Your task to perform on an android device: change notifications settings Image 0: 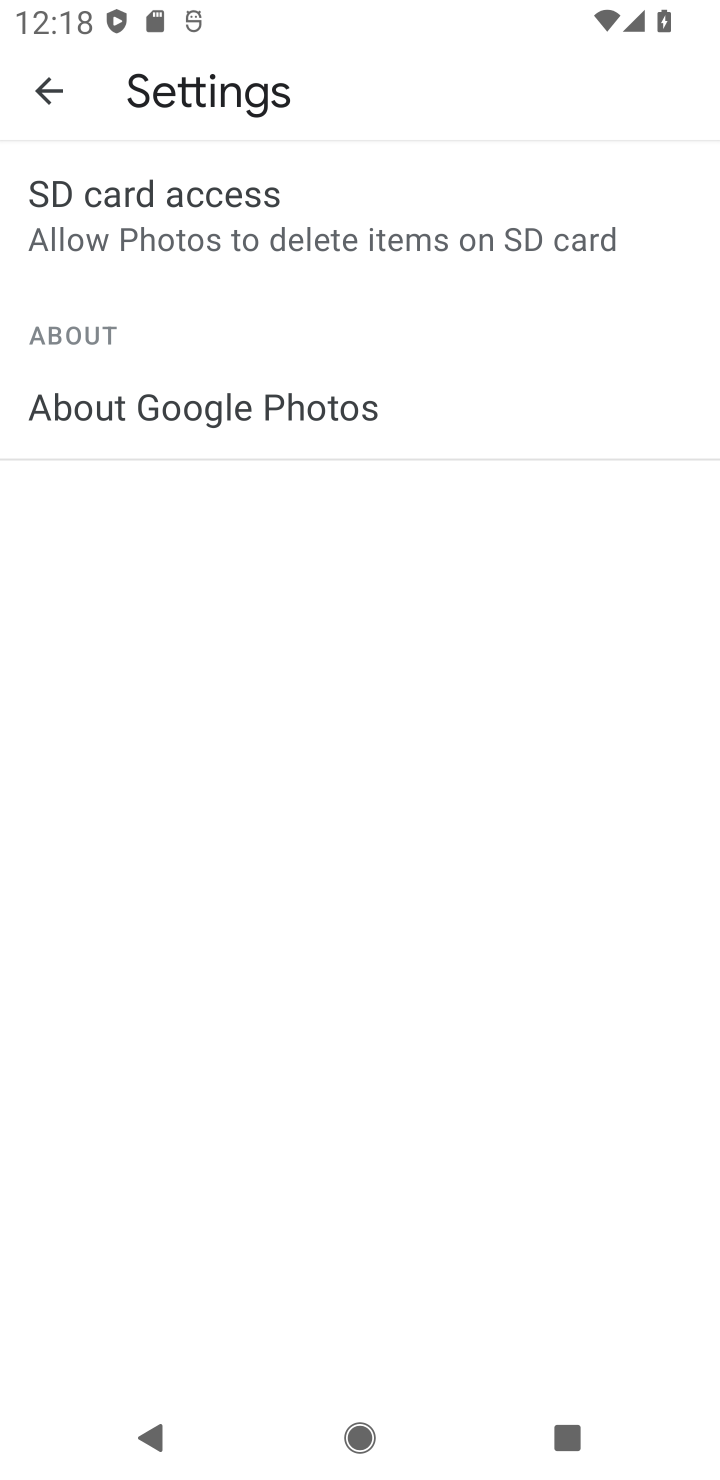
Step 0: press home button
Your task to perform on an android device: change notifications settings Image 1: 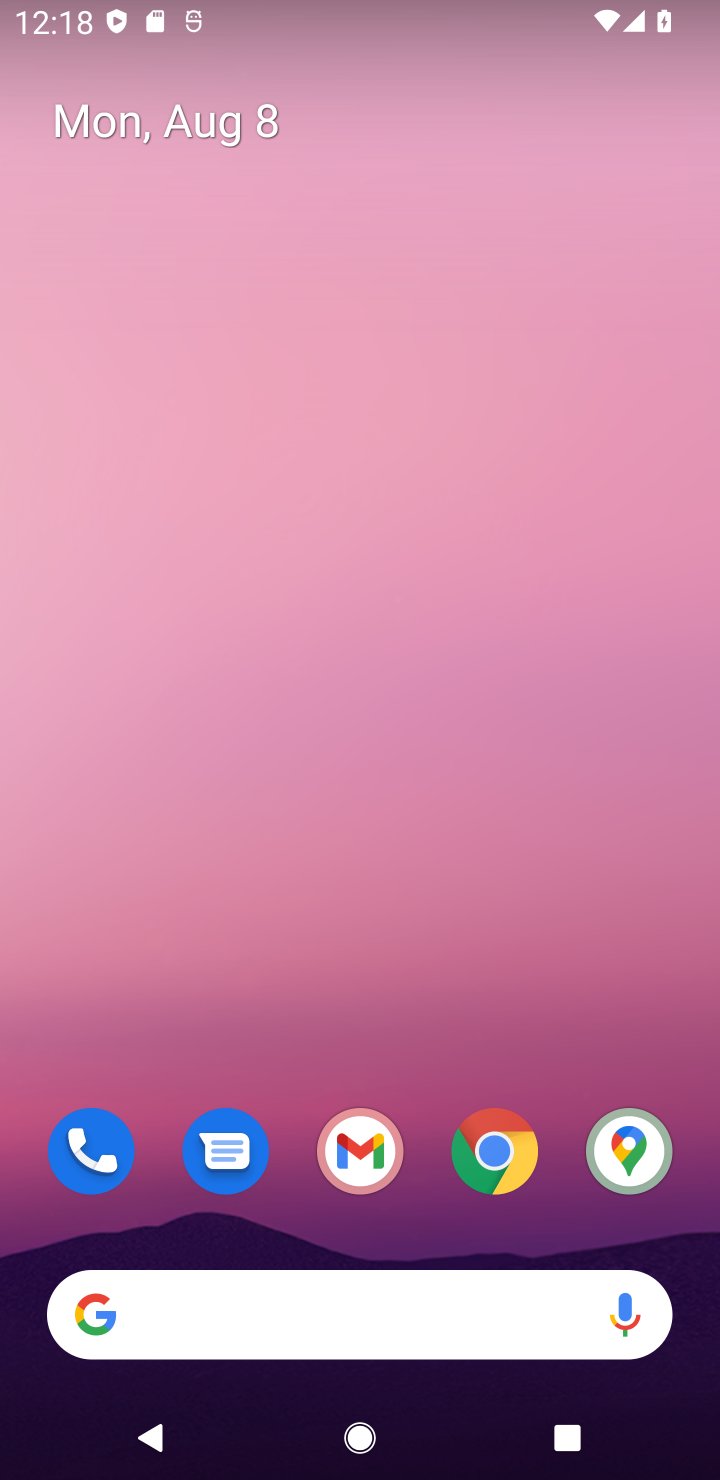
Step 1: drag from (307, 803) to (273, 264)
Your task to perform on an android device: change notifications settings Image 2: 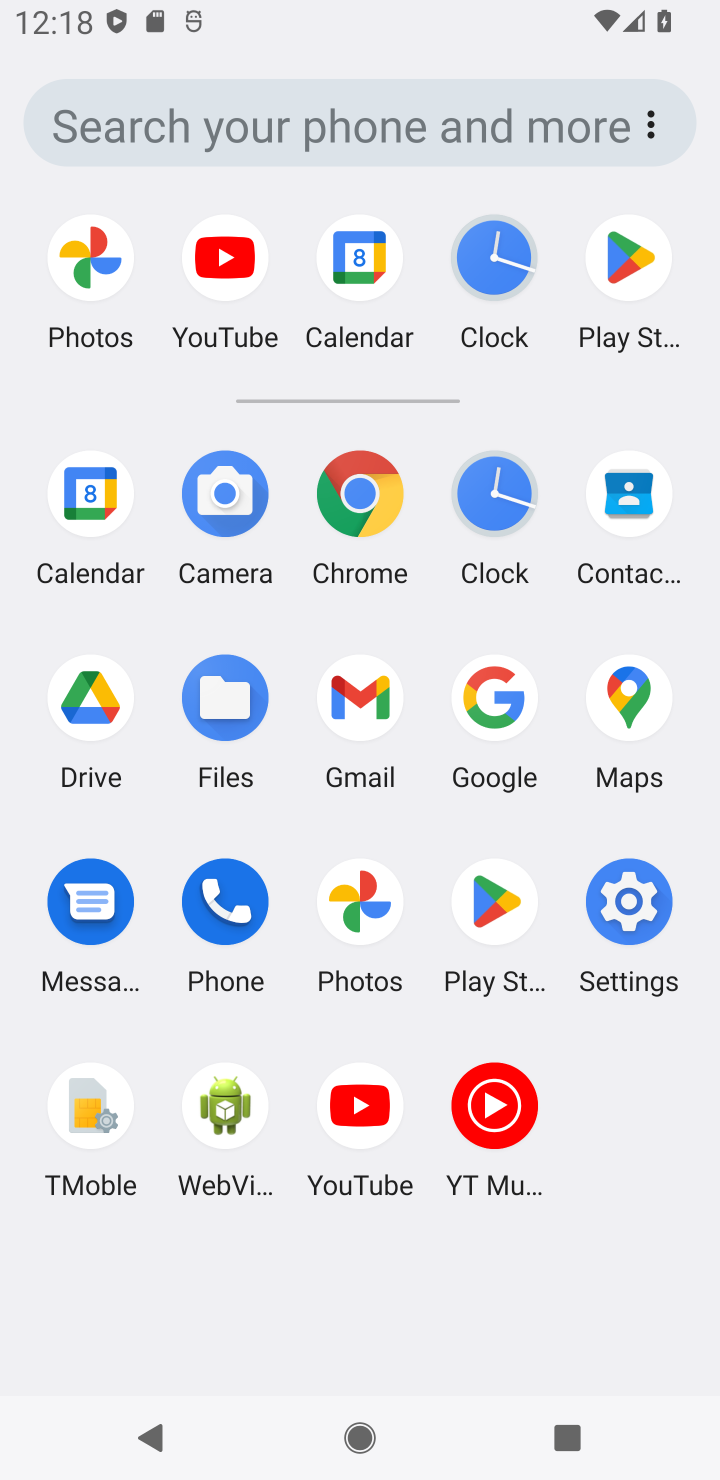
Step 2: click (631, 898)
Your task to perform on an android device: change notifications settings Image 3: 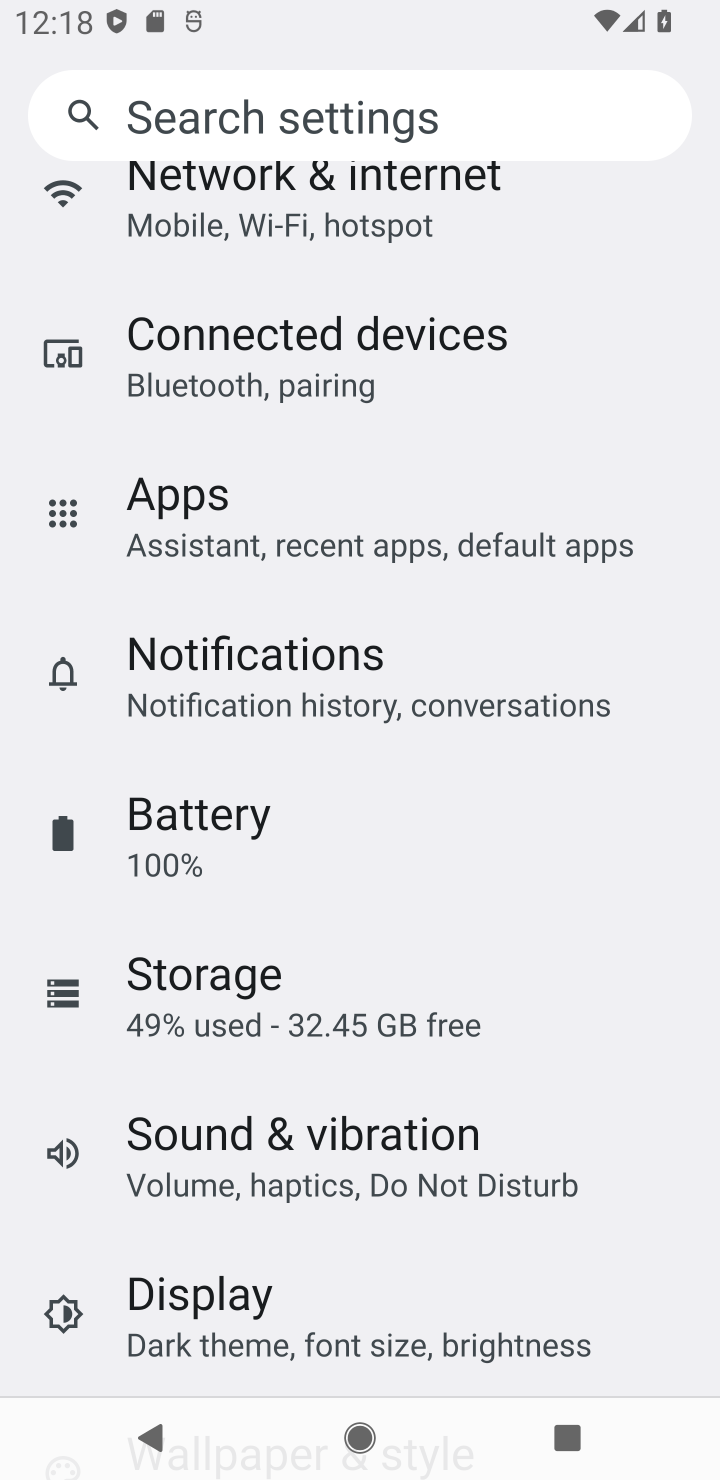
Step 3: click (292, 672)
Your task to perform on an android device: change notifications settings Image 4: 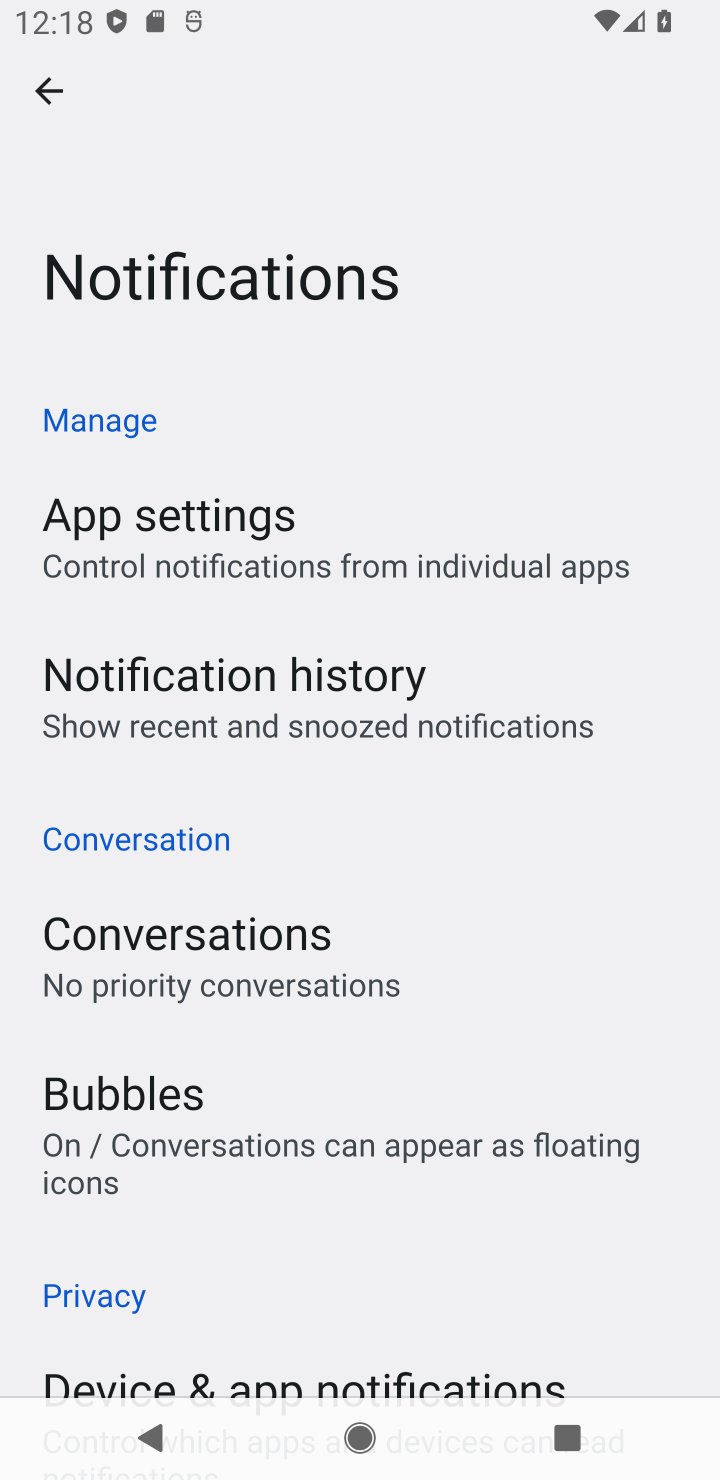
Step 4: click (249, 509)
Your task to perform on an android device: change notifications settings Image 5: 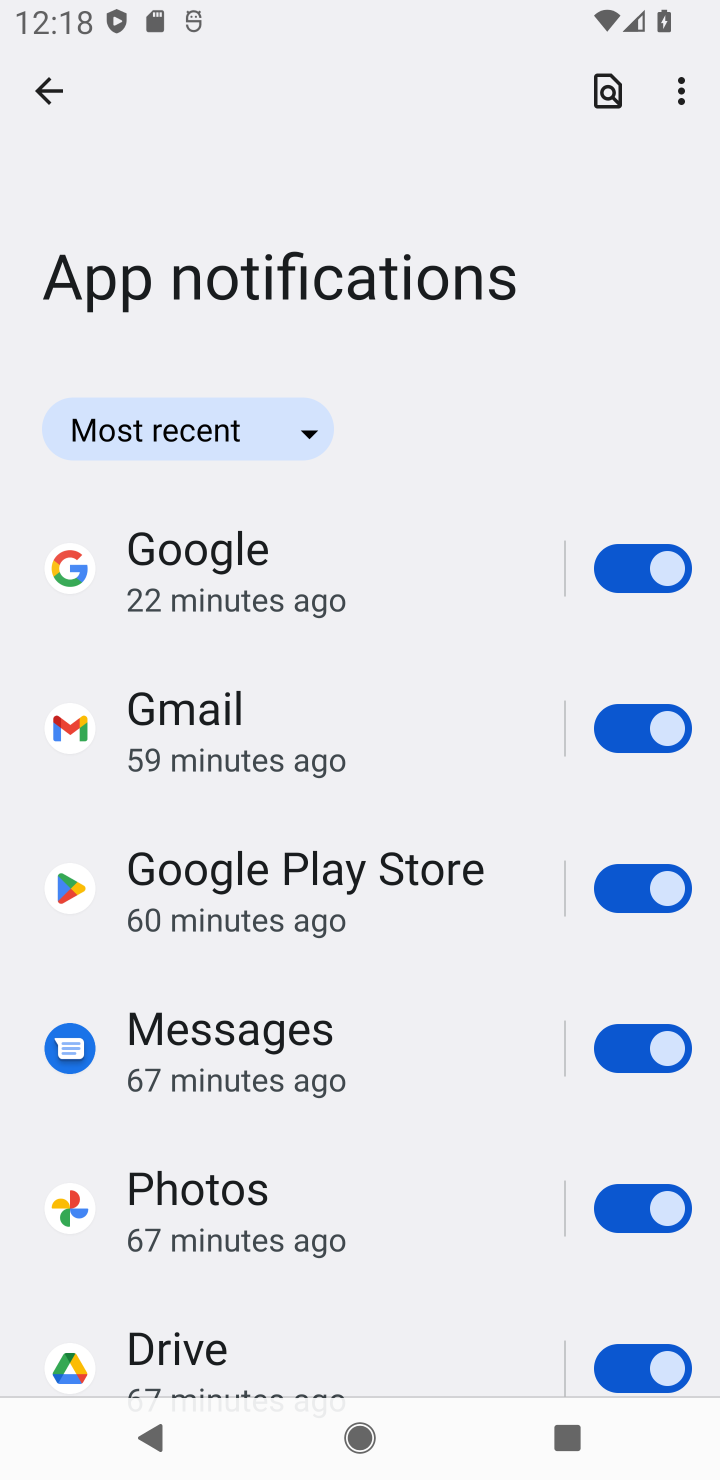
Step 5: click (626, 552)
Your task to perform on an android device: change notifications settings Image 6: 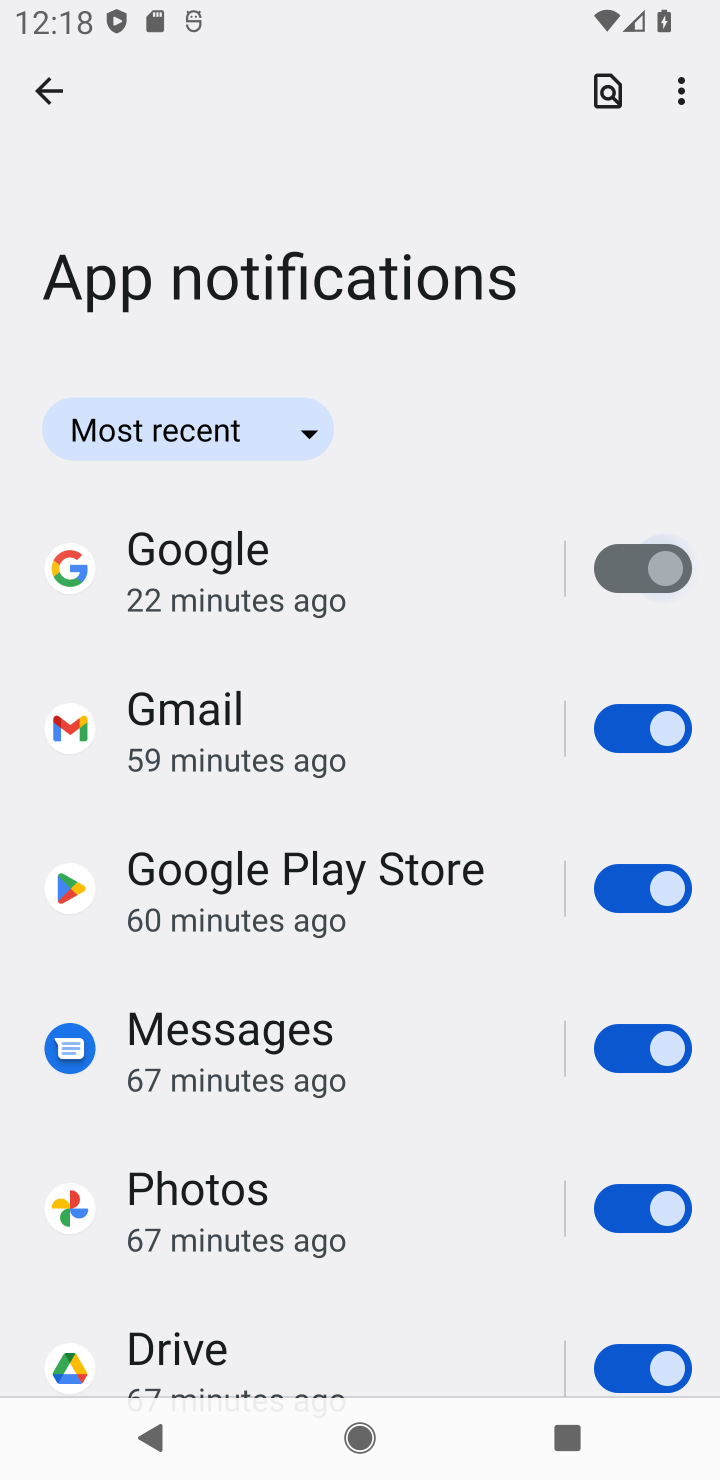
Step 6: click (619, 710)
Your task to perform on an android device: change notifications settings Image 7: 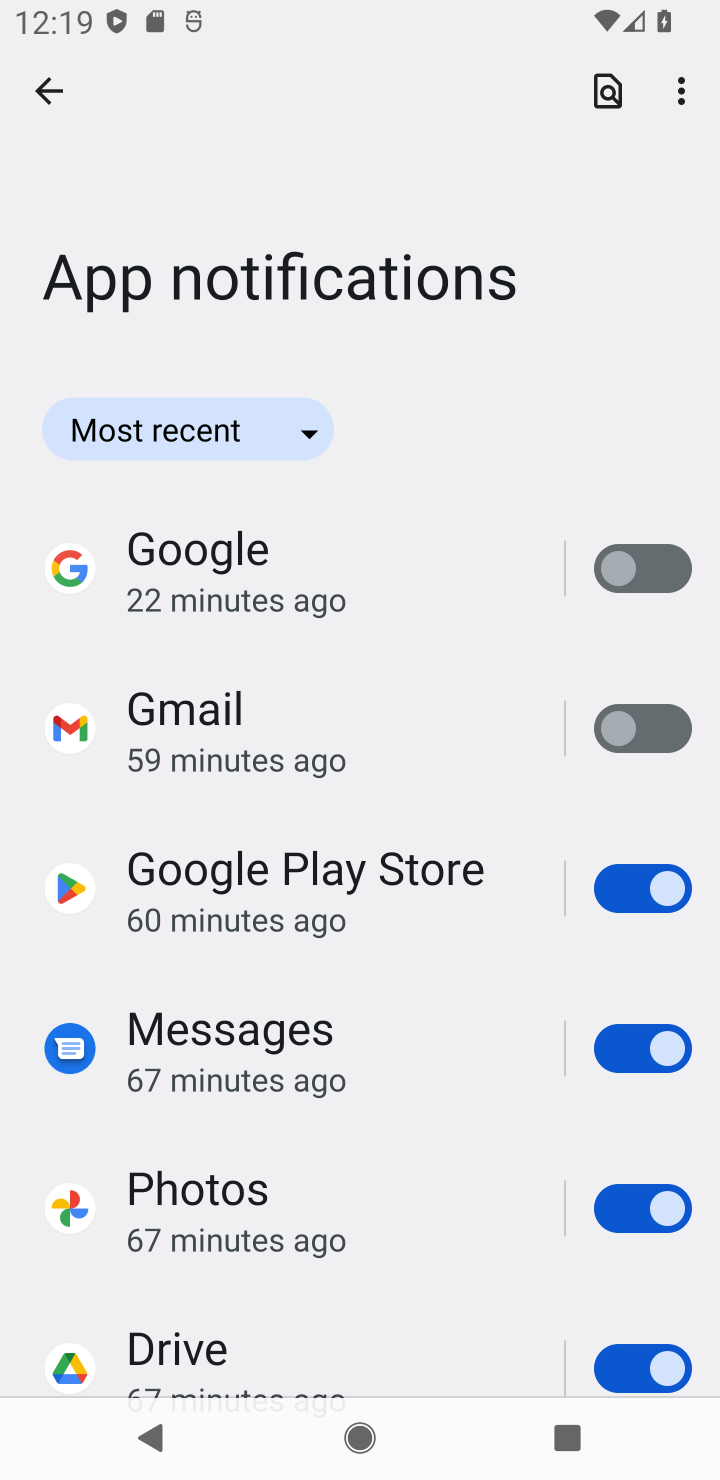
Step 7: click (619, 908)
Your task to perform on an android device: change notifications settings Image 8: 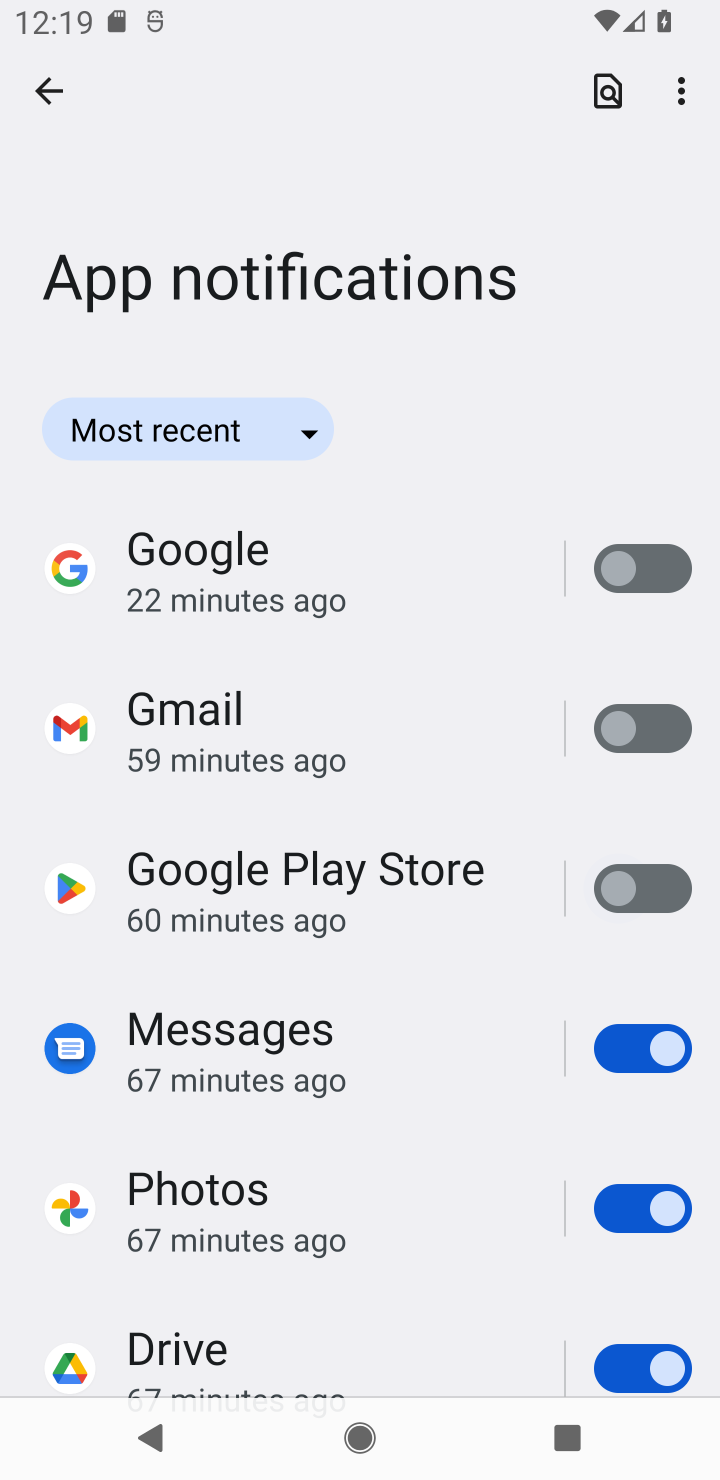
Step 8: click (608, 1049)
Your task to perform on an android device: change notifications settings Image 9: 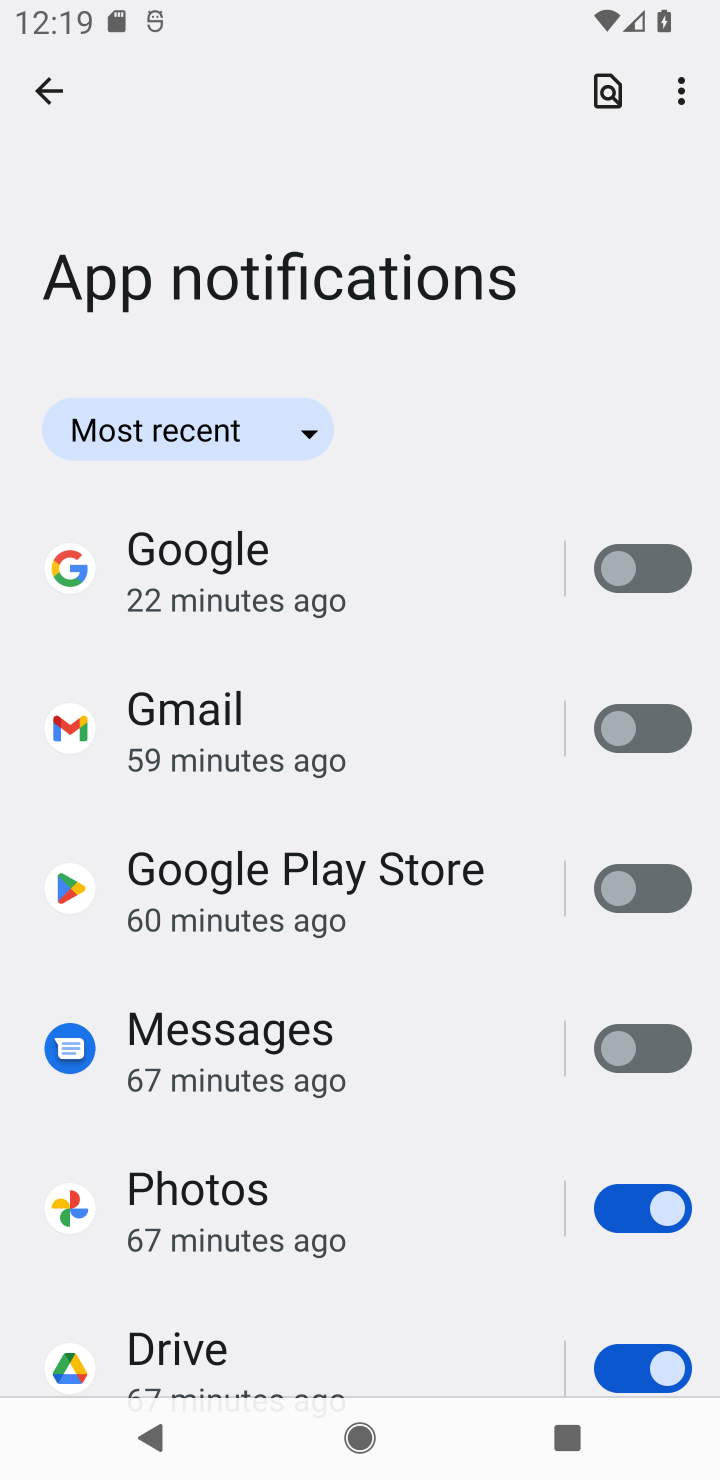
Step 9: click (591, 1183)
Your task to perform on an android device: change notifications settings Image 10: 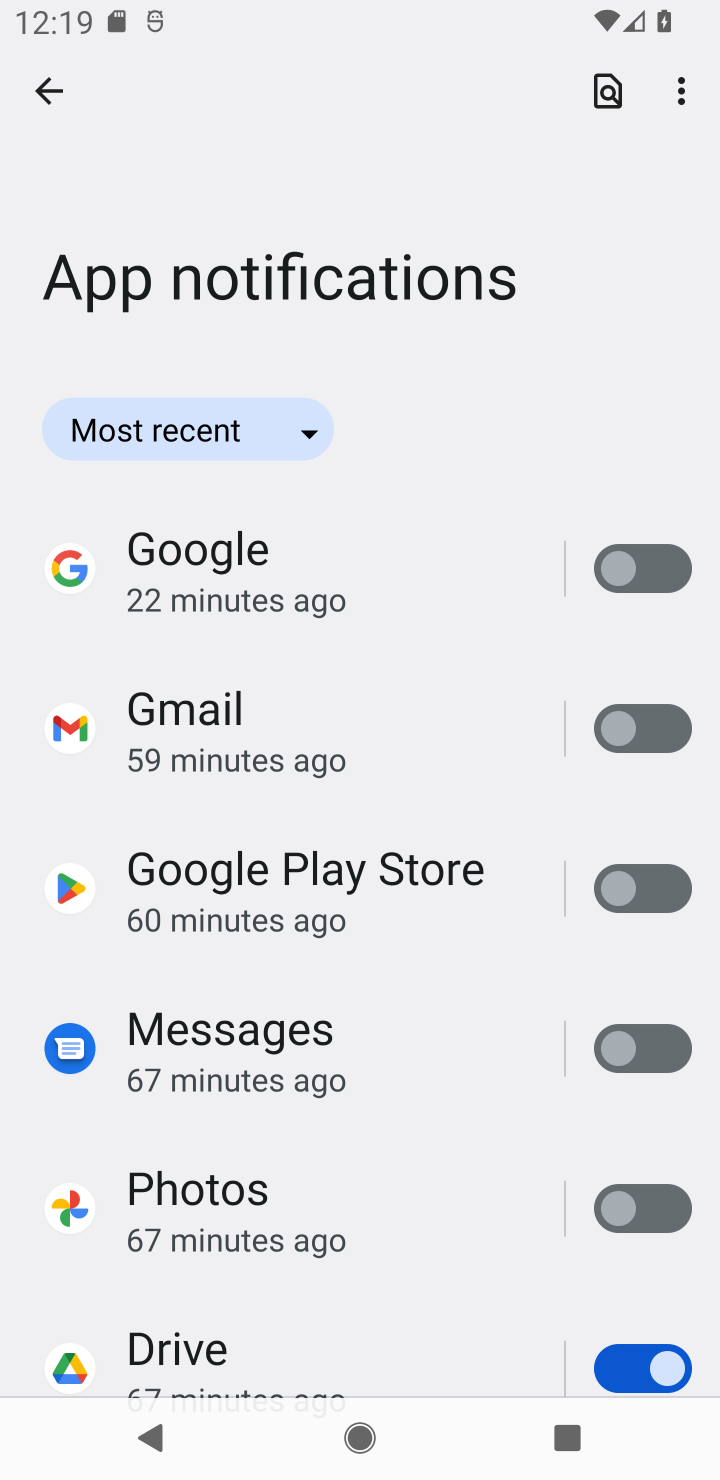
Step 10: click (628, 1372)
Your task to perform on an android device: change notifications settings Image 11: 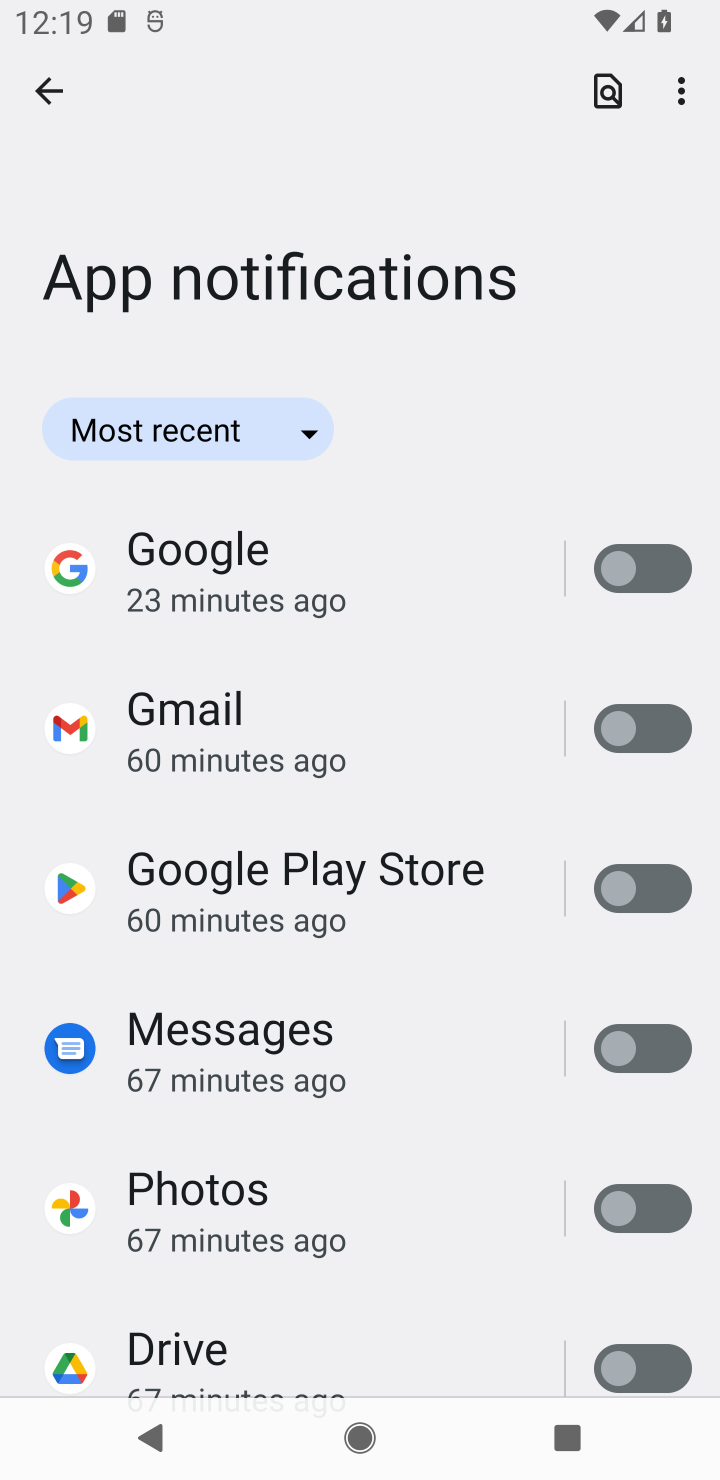
Step 11: task complete